Your task to perform on an android device: Open my contact list Image 0: 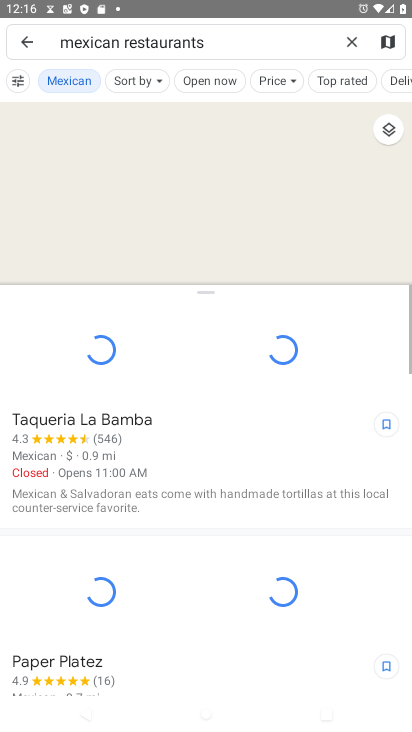
Step 0: press home button
Your task to perform on an android device: Open my contact list Image 1: 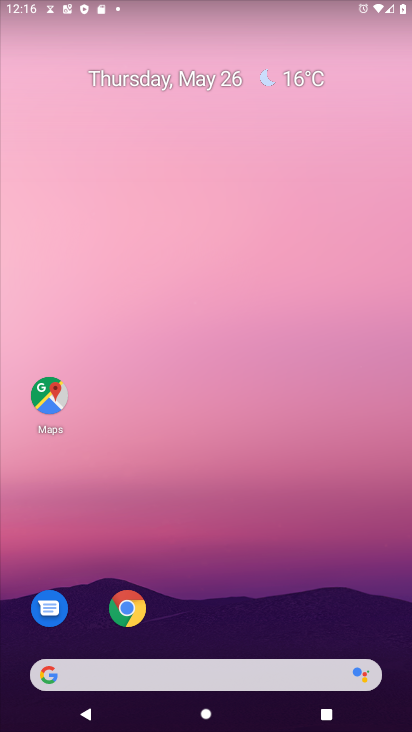
Step 1: drag from (227, 721) to (227, 192)
Your task to perform on an android device: Open my contact list Image 2: 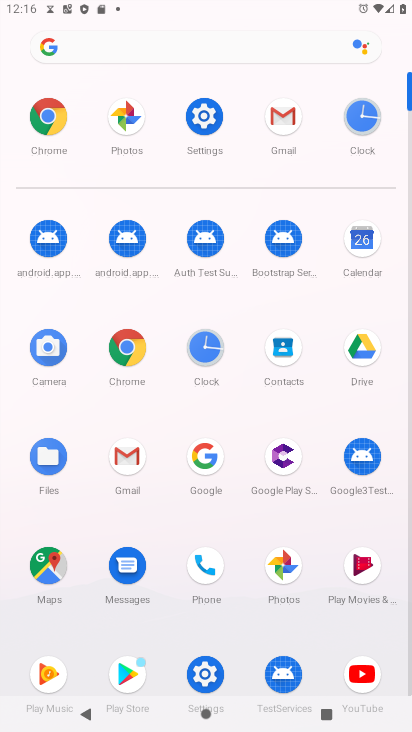
Step 2: click (287, 350)
Your task to perform on an android device: Open my contact list Image 3: 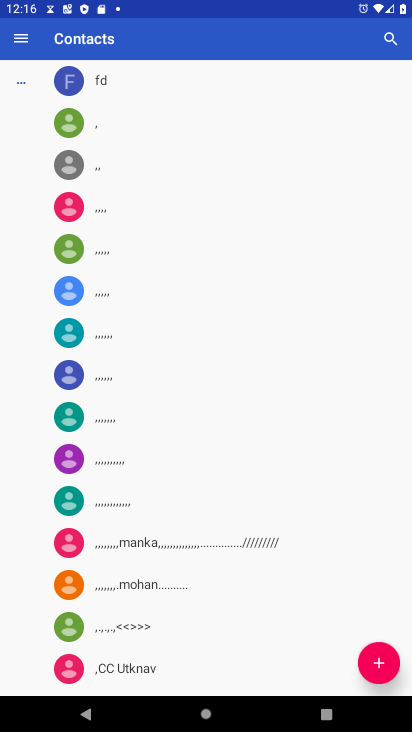
Step 3: task complete